Your task to perform on an android device: turn off data saver in the chrome app Image 0: 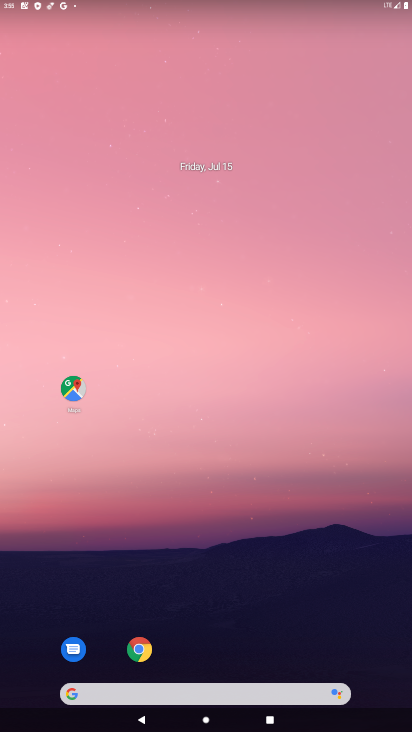
Step 0: click (136, 635)
Your task to perform on an android device: turn off data saver in the chrome app Image 1: 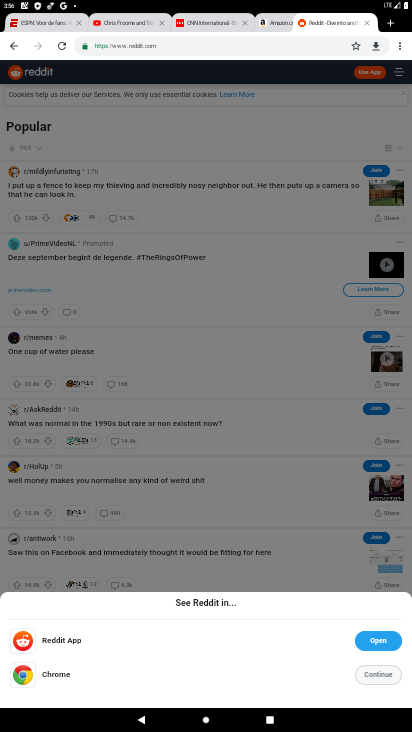
Step 1: click (399, 49)
Your task to perform on an android device: turn off data saver in the chrome app Image 2: 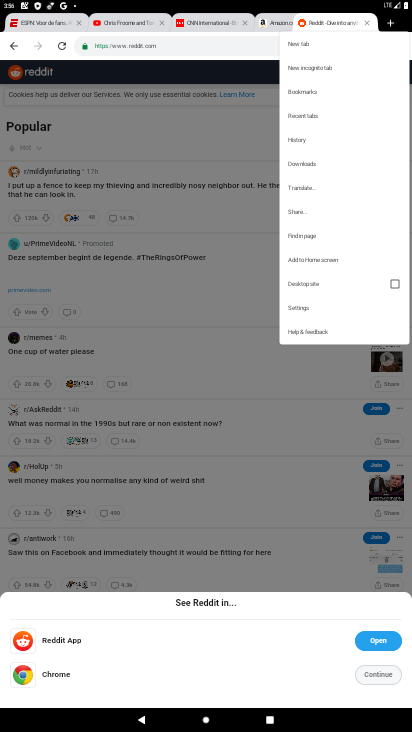
Step 2: click (300, 308)
Your task to perform on an android device: turn off data saver in the chrome app Image 3: 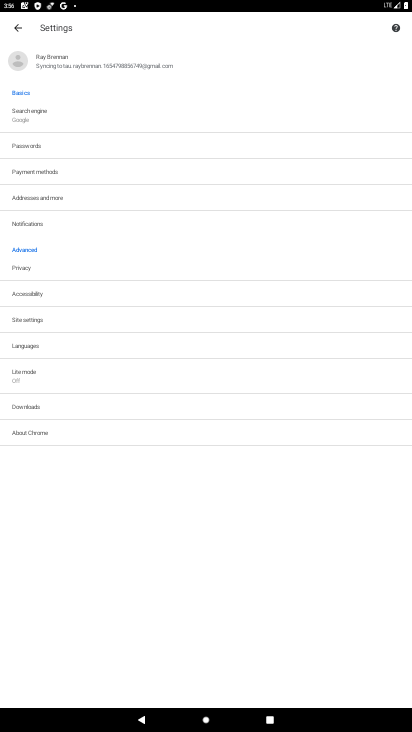
Step 3: click (48, 380)
Your task to perform on an android device: turn off data saver in the chrome app Image 4: 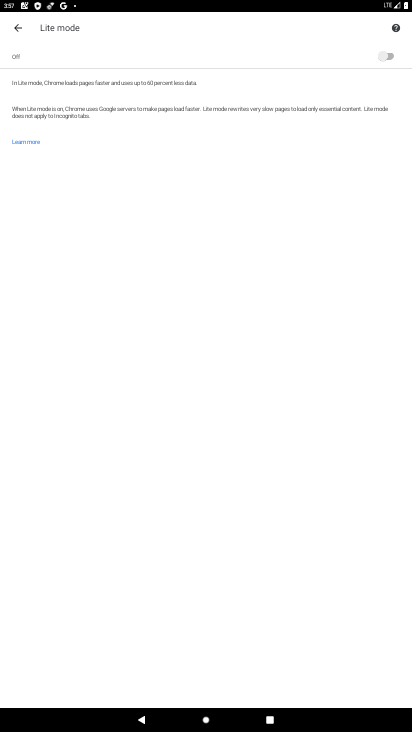
Step 4: press home button
Your task to perform on an android device: turn off data saver in the chrome app Image 5: 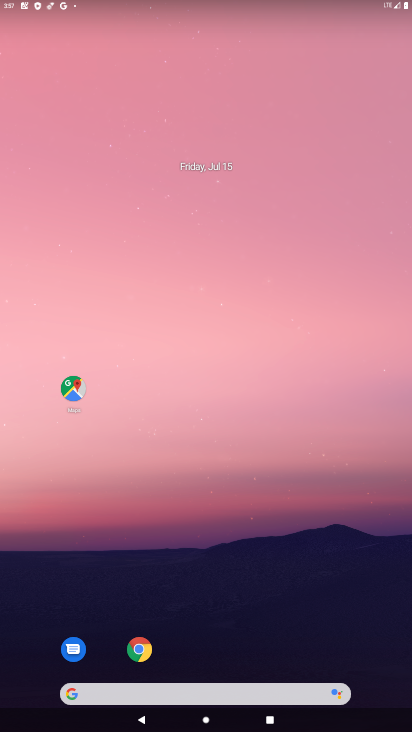
Step 5: click (136, 648)
Your task to perform on an android device: turn off data saver in the chrome app Image 6: 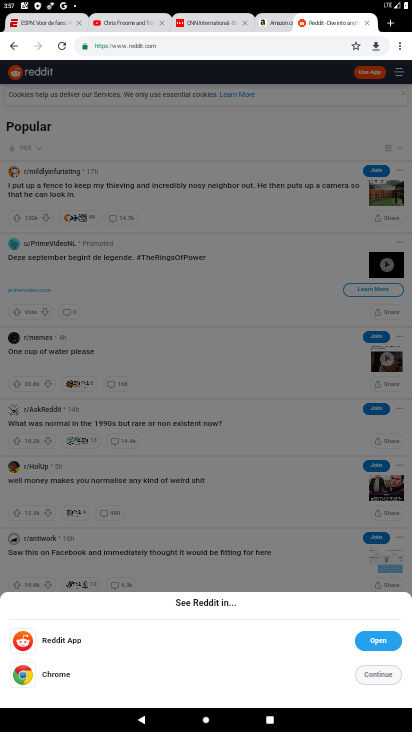
Step 6: click (400, 46)
Your task to perform on an android device: turn off data saver in the chrome app Image 7: 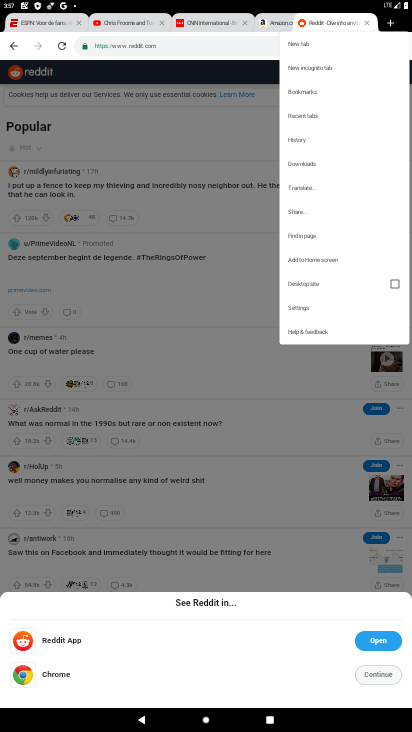
Step 7: click (317, 305)
Your task to perform on an android device: turn off data saver in the chrome app Image 8: 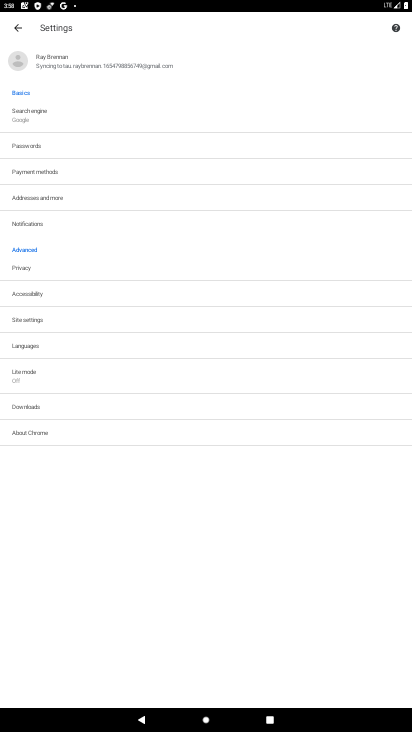
Step 8: click (54, 384)
Your task to perform on an android device: turn off data saver in the chrome app Image 9: 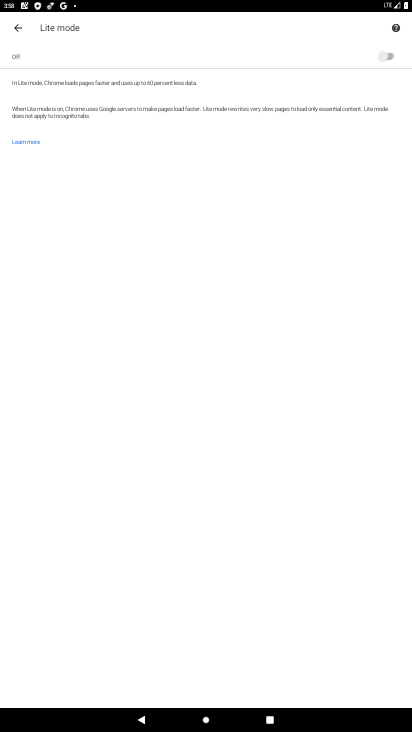
Step 9: task complete